Your task to perform on an android device: add a label to a message in the gmail app Image 0: 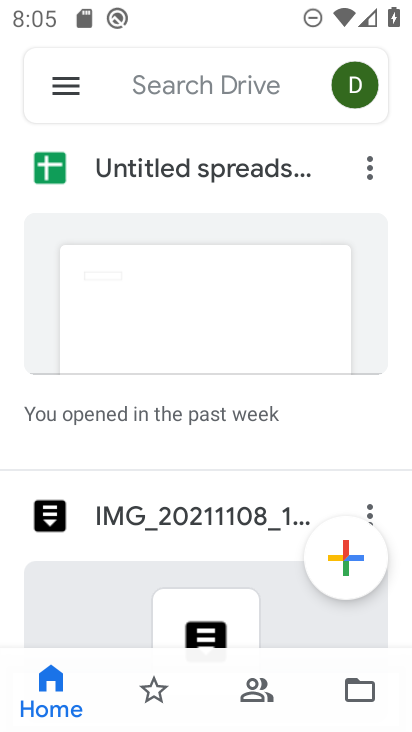
Step 0: press home button
Your task to perform on an android device: add a label to a message in the gmail app Image 1: 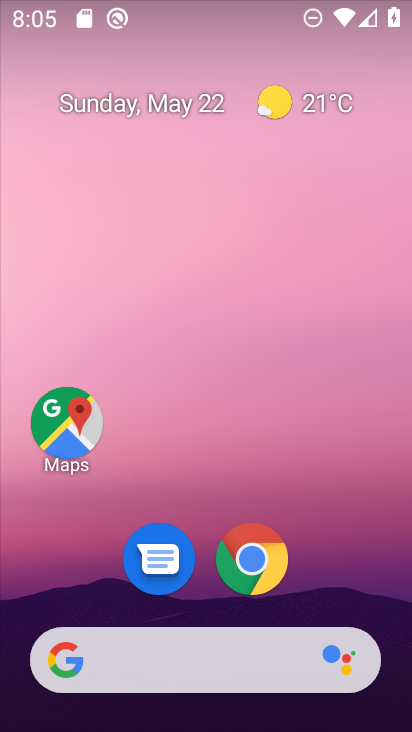
Step 1: drag from (287, 694) to (229, 232)
Your task to perform on an android device: add a label to a message in the gmail app Image 2: 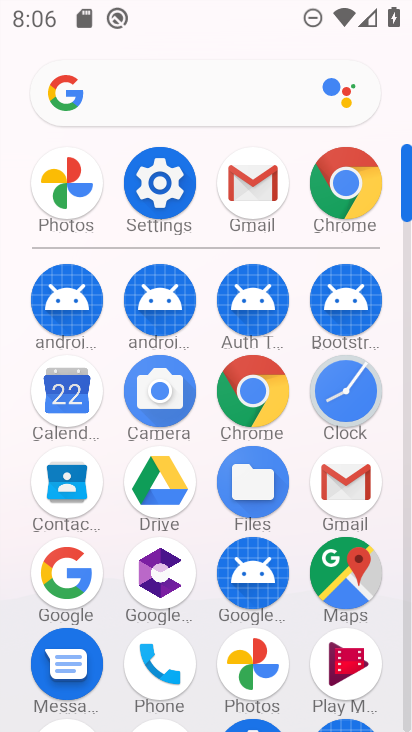
Step 2: click (276, 205)
Your task to perform on an android device: add a label to a message in the gmail app Image 3: 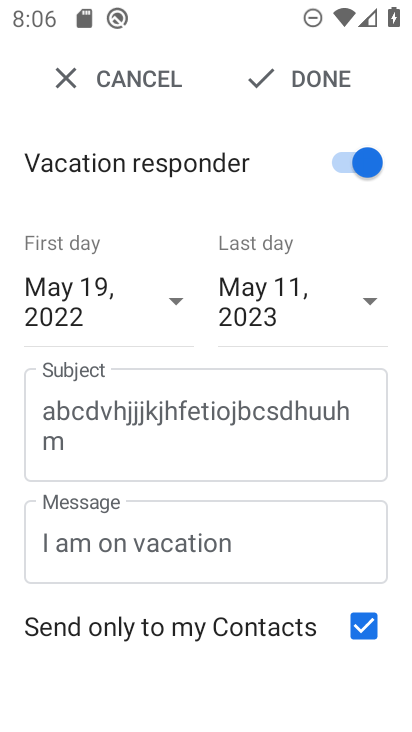
Step 3: click (58, 82)
Your task to perform on an android device: add a label to a message in the gmail app Image 4: 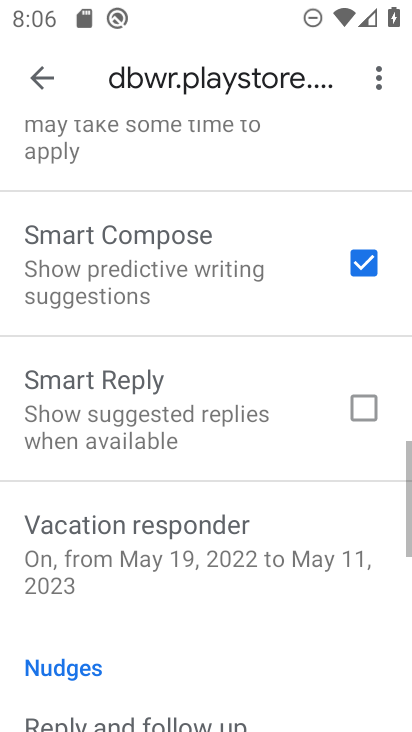
Step 4: drag from (100, 217) to (215, 708)
Your task to perform on an android device: add a label to a message in the gmail app Image 5: 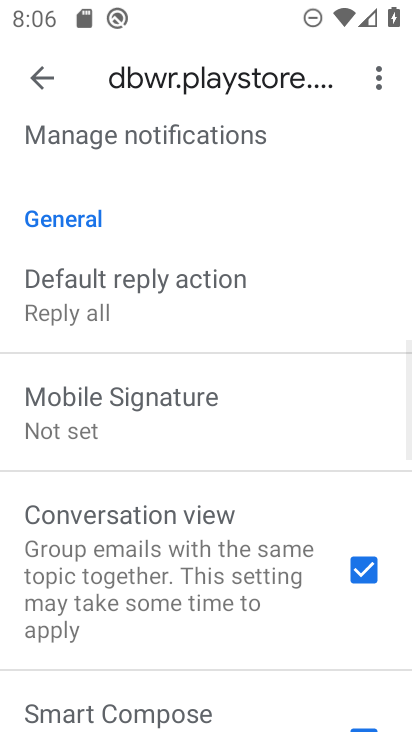
Step 5: drag from (177, 307) to (210, 544)
Your task to perform on an android device: add a label to a message in the gmail app Image 6: 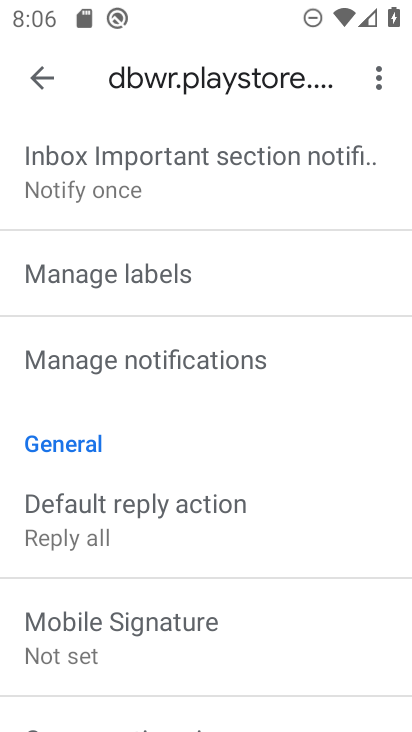
Step 6: click (138, 285)
Your task to perform on an android device: add a label to a message in the gmail app Image 7: 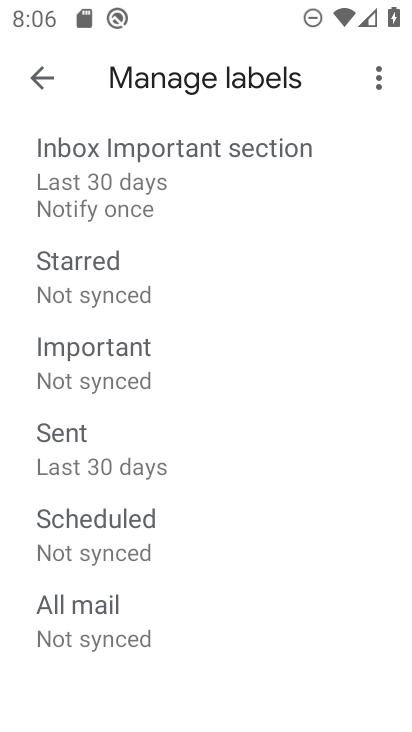
Step 7: click (65, 371)
Your task to perform on an android device: add a label to a message in the gmail app Image 8: 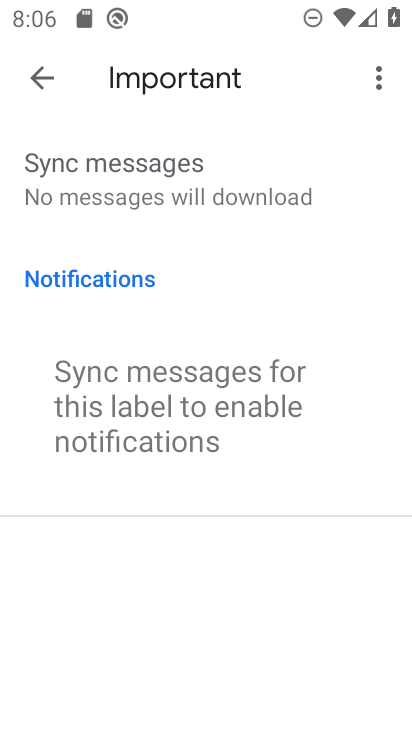
Step 8: task complete